Your task to perform on an android device: turn notification dots off Image 0: 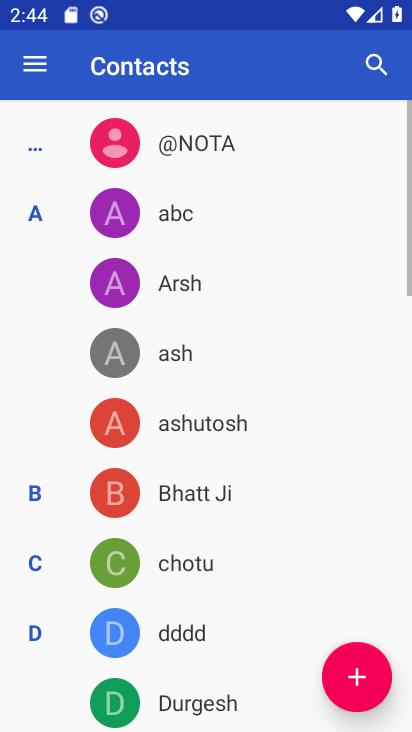
Step 0: press home button
Your task to perform on an android device: turn notification dots off Image 1: 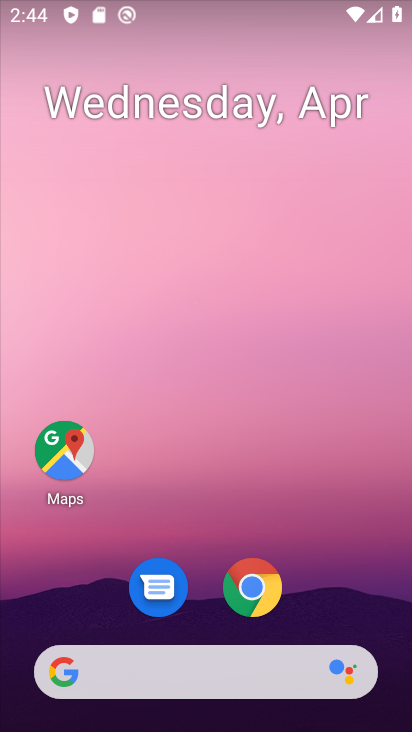
Step 1: drag from (207, 606) to (266, 78)
Your task to perform on an android device: turn notification dots off Image 2: 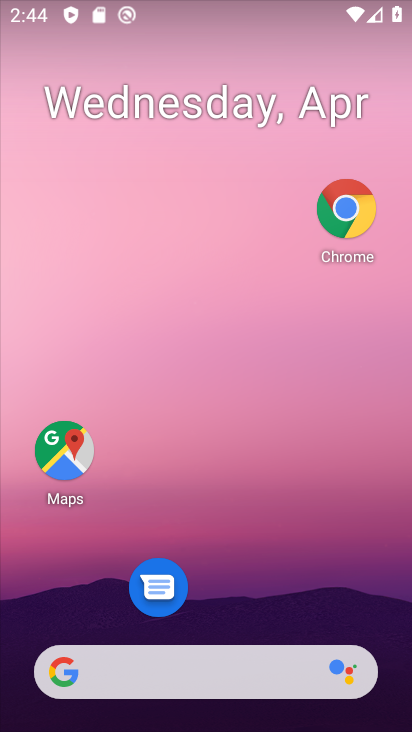
Step 2: drag from (233, 211) to (233, 163)
Your task to perform on an android device: turn notification dots off Image 3: 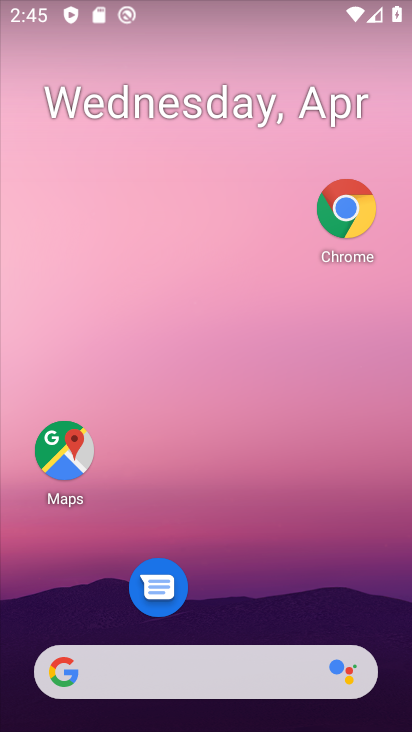
Step 3: drag from (216, 472) to (226, 133)
Your task to perform on an android device: turn notification dots off Image 4: 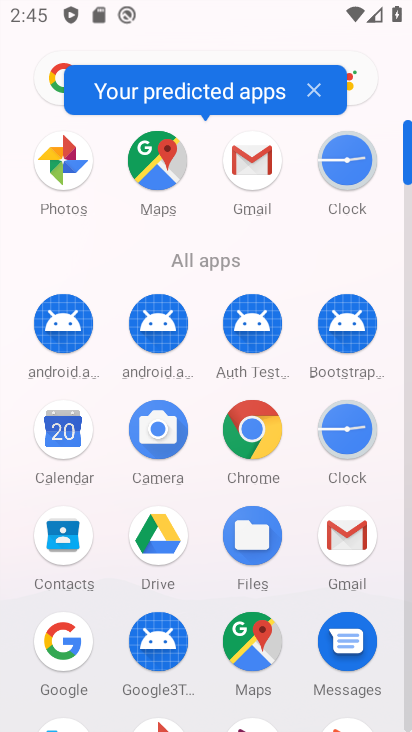
Step 4: drag from (199, 515) to (216, 193)
Your task to perform on an android device: turn notification dots off Image 5: 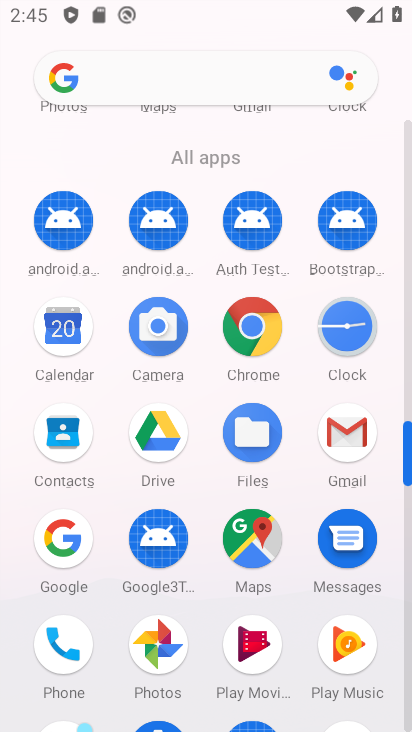
Step 5: drag from (208, 603) to (226, 355)
Your task to perform on an android device: turn notification dots off Image 6: 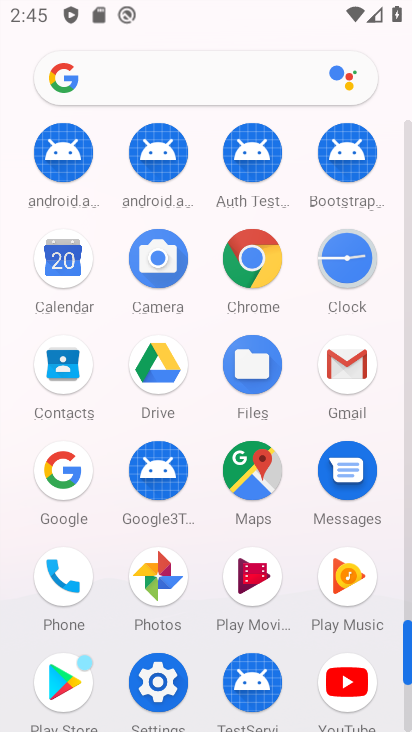
Step 6: click (162, 694)
Your task to perform on an android device: turn notification dots off Image 7: 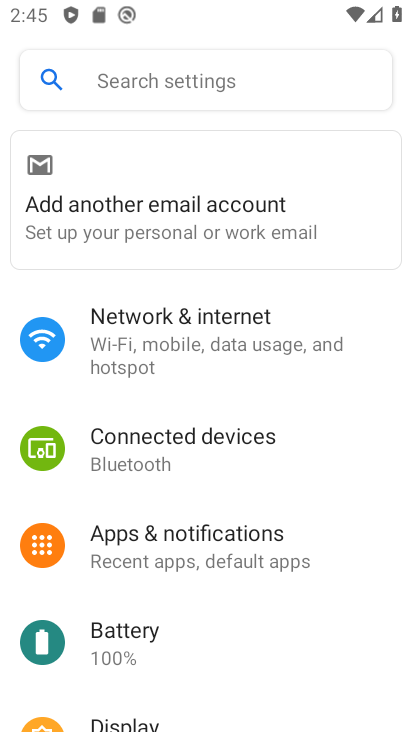
Step 7: click (228, 541)
Your task to perform on an android device: turn notification dots off Image 8: 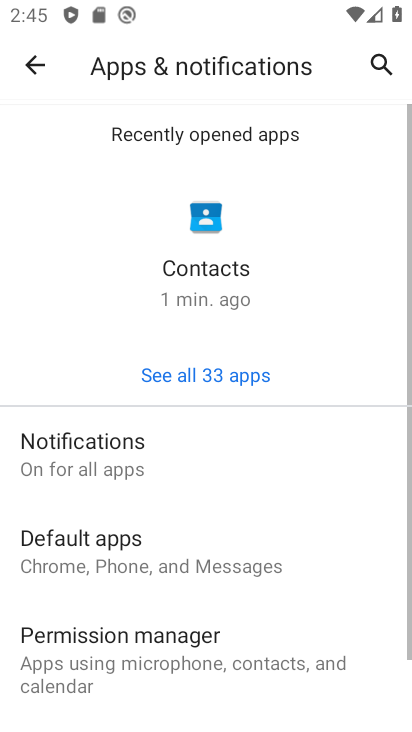
Step 8: click (179, 467)
Your task to perform on an android device: turn notification dots off Image 9: 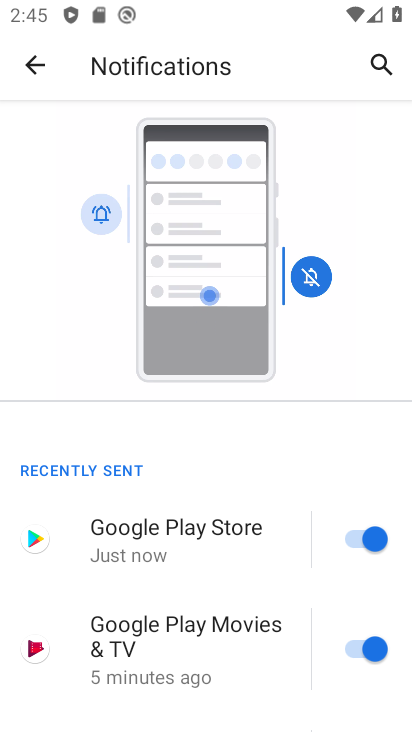
Step 9: drag from (261, 614) to (261, 179)
Your task to perform on an android device: turn notification dots off Image 10: 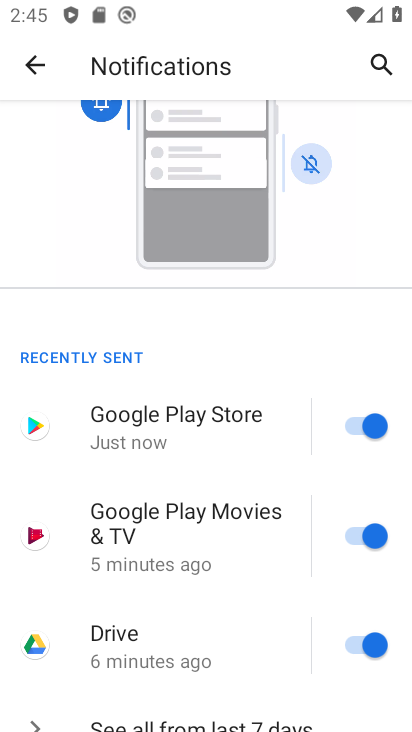
Step 10: drag from (242, 624) to (271, 168)
Your task to perform on an android device: turn notification dots off Image 11: 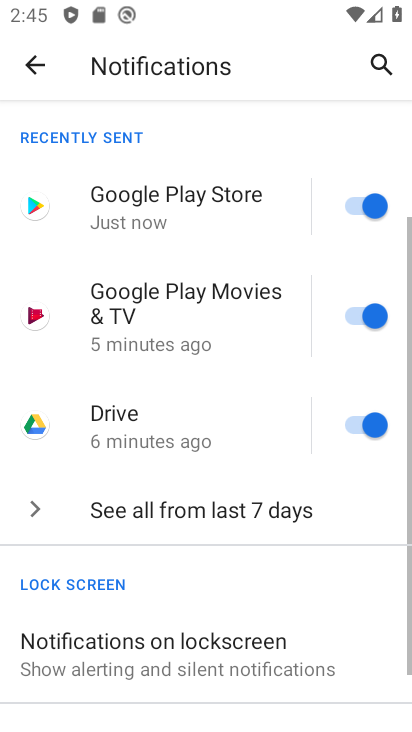
Step 11: drag from (238, 658) to (253, 229)
Your task to perform on an android device: turn notification dots off Image 12: 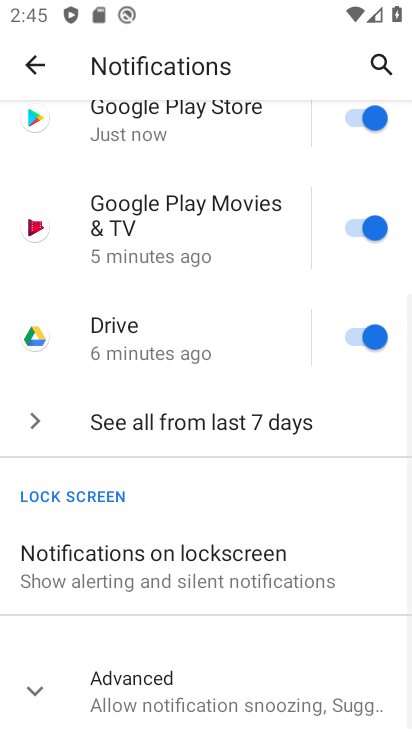
Step 12: click (197, 697)
Your task to perform on an android device: turn notification dots off Image 13: 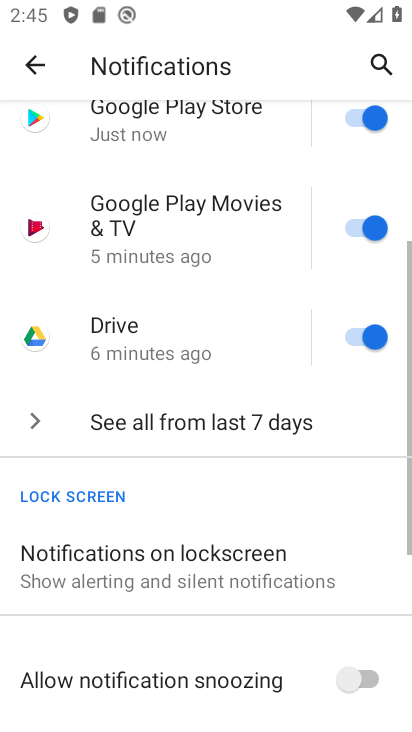
Step 13: drag from (213, 676) to (238, 295)
Your task to perform on an android device: turn notification dots off Image 14: 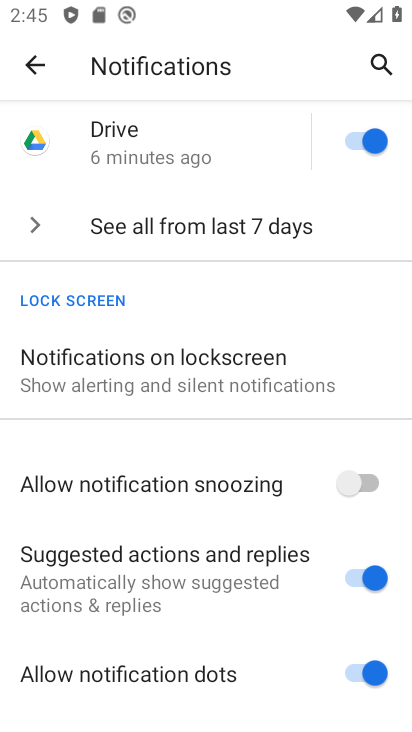
Step 14: click (354, 680)
Your task to perform on an android device: turn notification dots off Image 15: 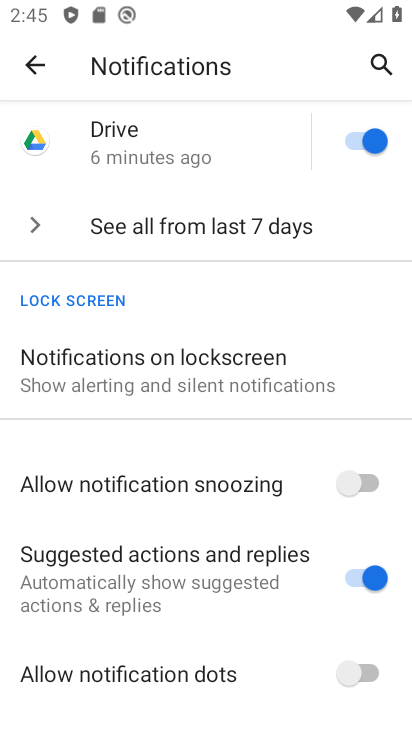
Step 15: task complete